Your task to perform on an android device: Open ESPN.com Image 0: 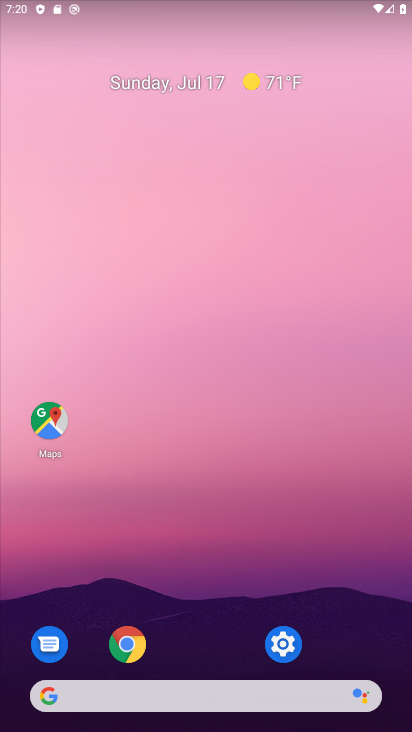
Step 0: click (136, 640)
Your task to perform on an android device: Open ESPN.com Image 1: 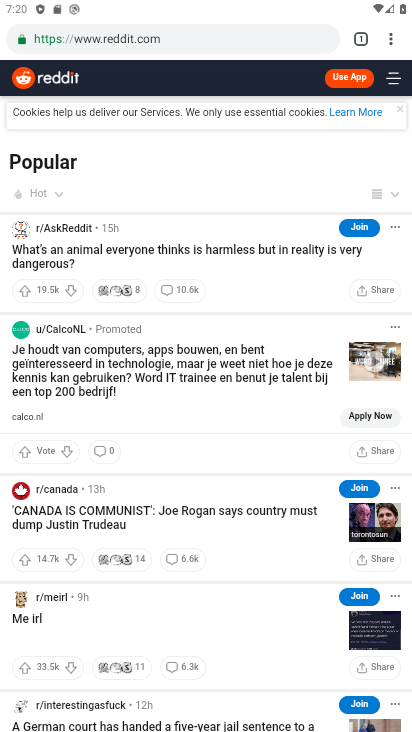
Step 1: click (390, 39)
Your task to perform on an android device: Open ESPN.com Image 2: 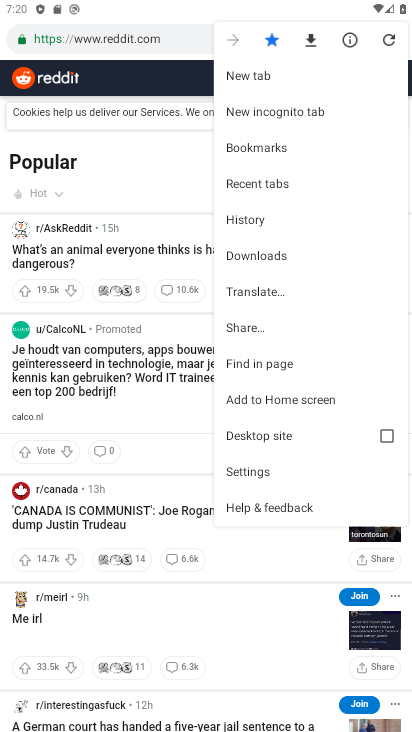
Step 2: click (263, 75)
Your task to perform on an android device: Open ESPN.com Image 3: 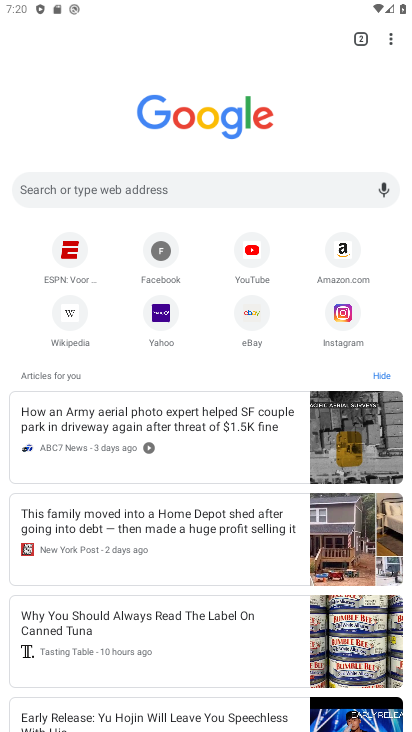
Step 3: click (65, 252)
Your task to perform on an android device: Open ESPN.com Image 4: 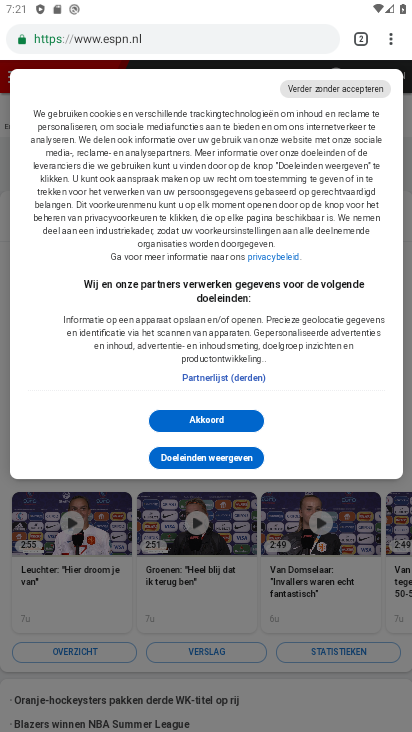
Step 4: click (202, 415)
Your task to perform on an android device: Open ESPN.com Image 5: 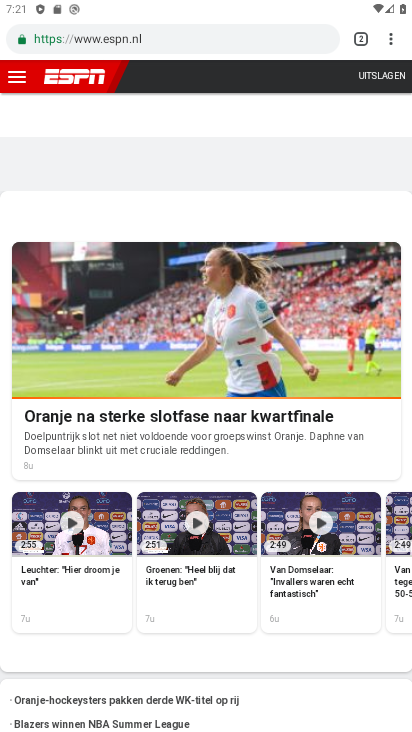
Step 5: task complete